Your task to perform on an android device: Open battery settings Image 0: 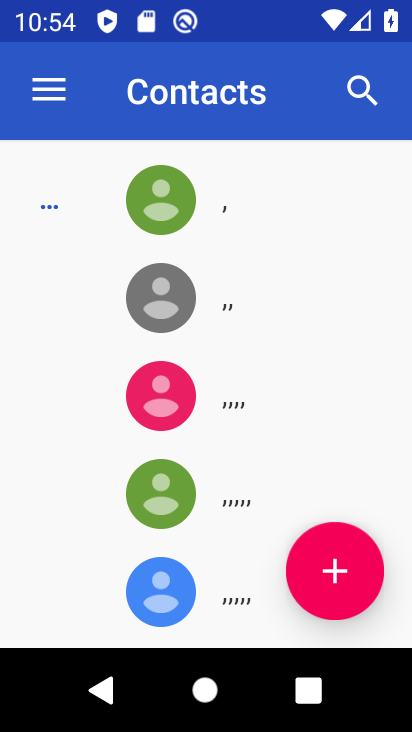
Step 0: press home button
Your task to perform on an android device: Open battery settings Image 1: 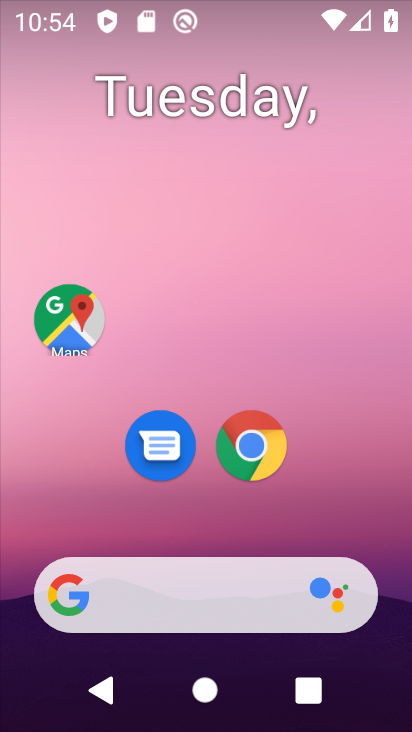
Step 1: drag from (368, 453) to (344, 157)
Your task to perform on an android device: Open battery settings Image 2: 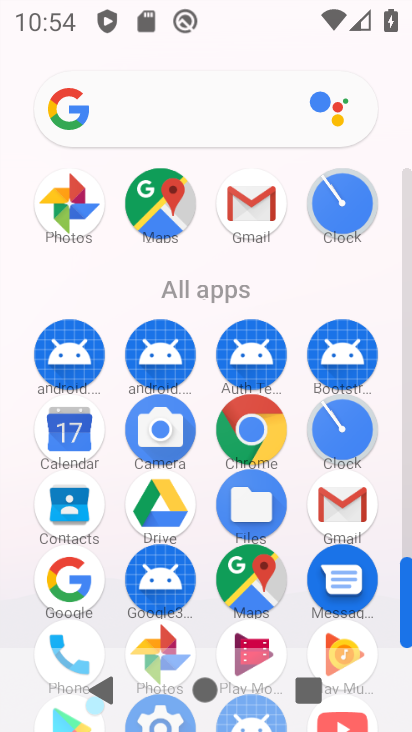
Step 2: drag from (194, 501) to (206, 248)
Your task to perform on an android device: Open battery settings Image 3: 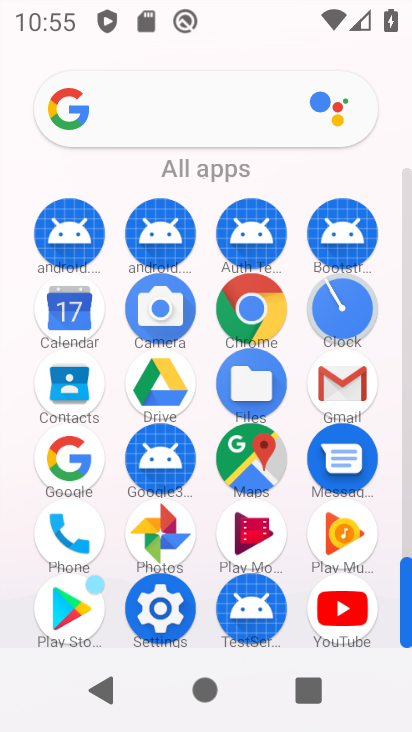
Step 3: click (169, 596)
Your task to perform on an android device: Open battery settings Image 4: 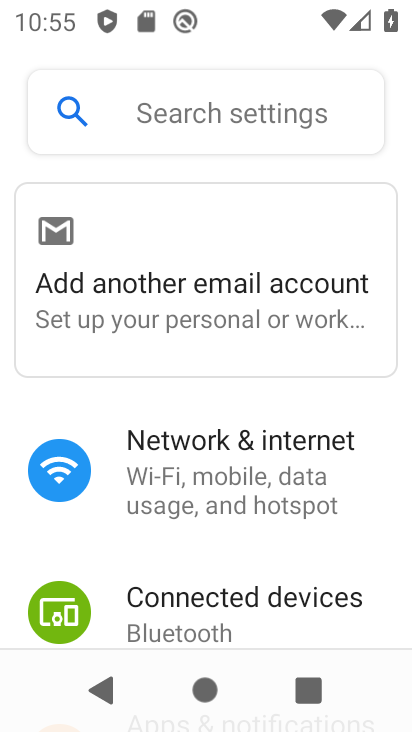
Step 4: drag from (376, 628) to (380, 462)
Your task to perform on an android device: Open battery settings Image 5: 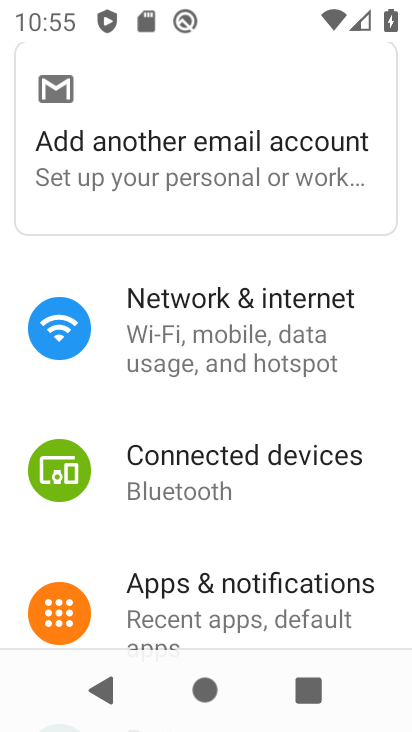
Step 5: drag from (346, 533) to (350, 363)
Your task to perform on an android device: Open battery settings Image 6: 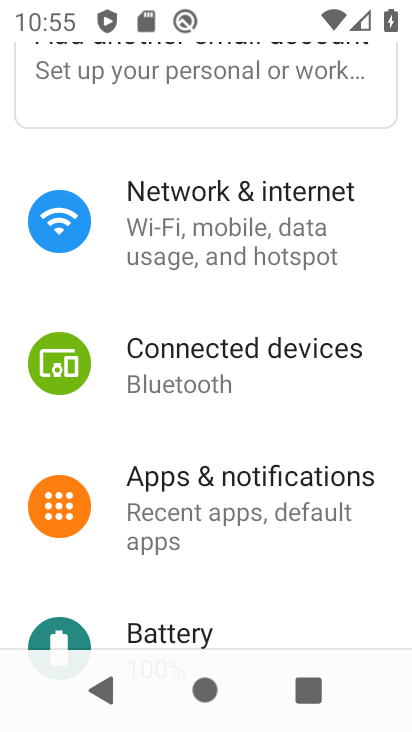
Step 6: drag from (343, 605) to (337, 391)
Your task to perform on an android device: Open battery settings Image 7: 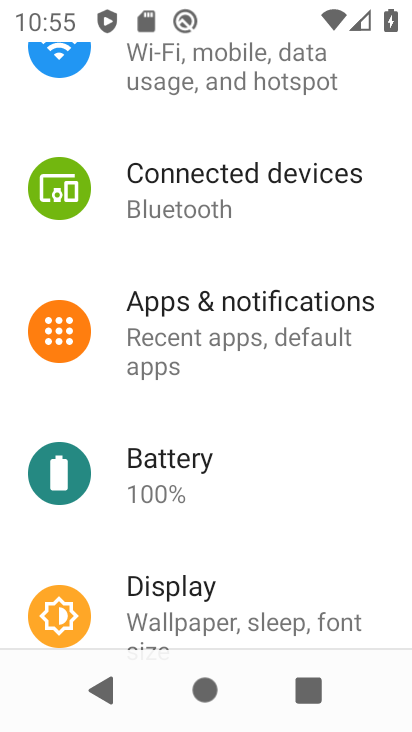
Step 7: drag from (327, 555) to (333, 377)
Your task to perform on an android device: Open battery settings Image 8: 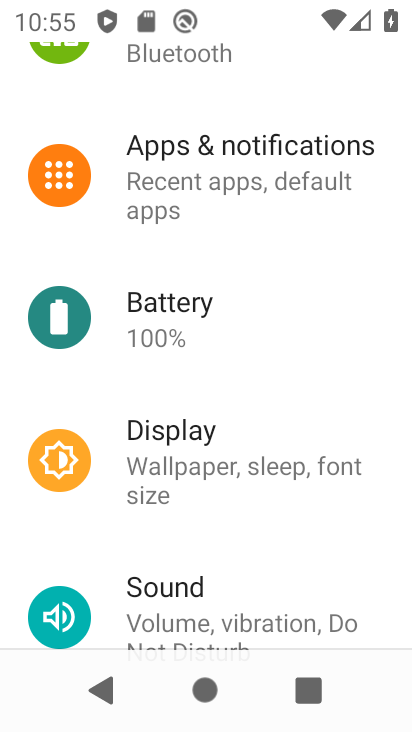
Step 8: drag from (311, 558) to (304, 396)
Your task to perform on an android device: Open battery settings Image 9: 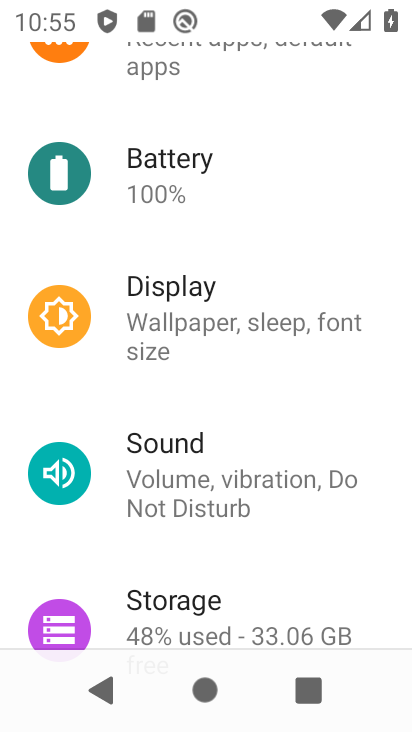
Step 9: drag from (310, 555) to (303, 379)
Your task to perform on an android device: Open battery settings Image 10: 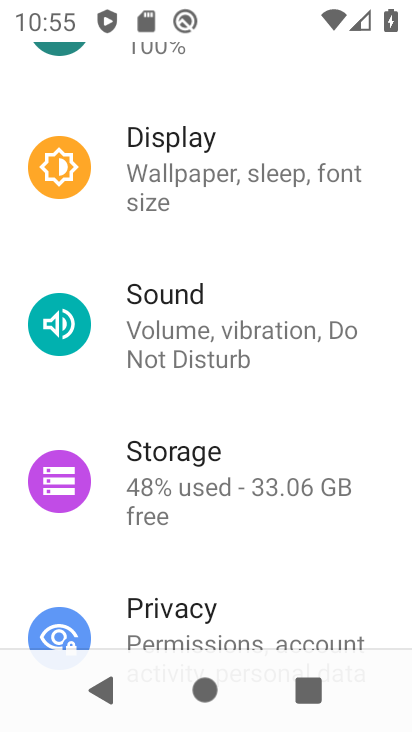
Step 10: drag from (335, 564) to (347, 372)
Your task to perform on an android device: Open battery settings Image 11: 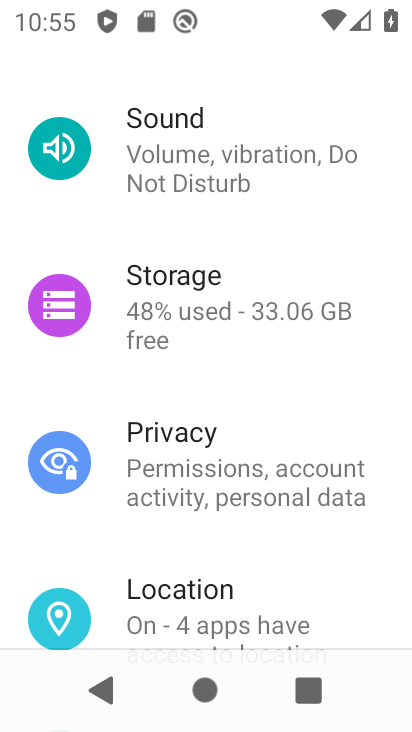
Step 11: drag from (346, 557) to (348, 408)
Your task to perform on an android device: Open battery settings Image 12: 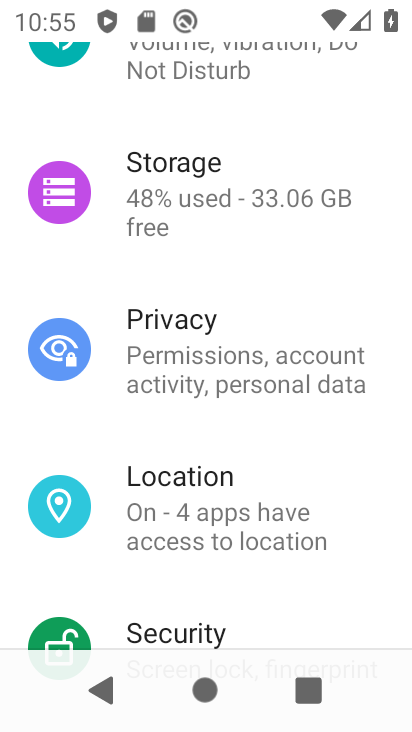
Step 12: drag from (363, 617) to (369, 428)
Your task to perform on an android device: Open battery settings Image 13: 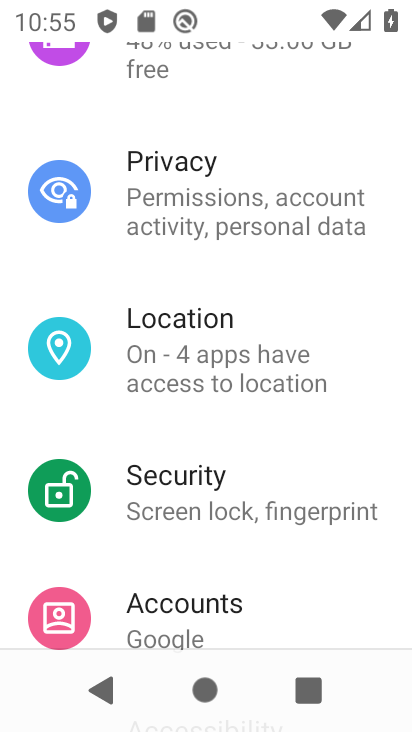
Step 13: drag from (353, 609) to (342, 418)
Your task to perform on an android device: Open battery settings Image 14: 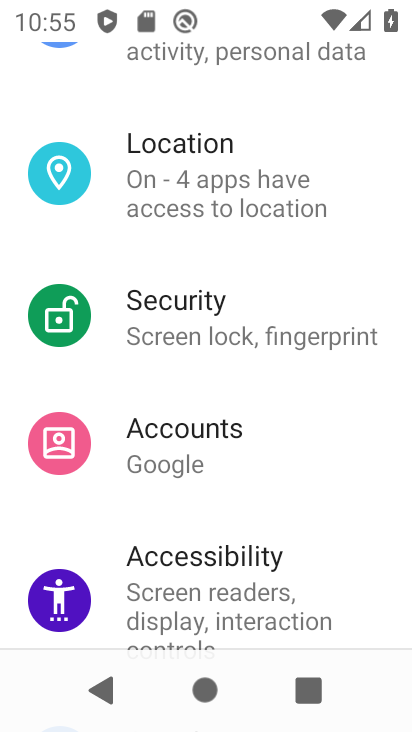
Step 14: drag from (342, 597) to (335, 431)
Your task to perform on an android device: Open battery settings Image 15: 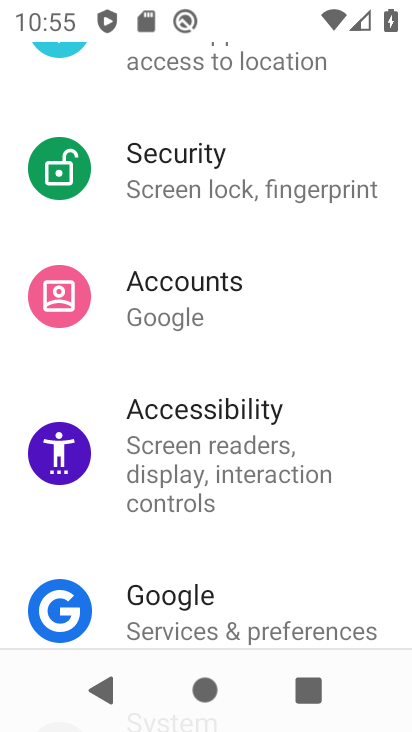
Step 15: drag from (322, 528) to (329, 384)
Your task to perform on an android device: Open battery settings Image 16: 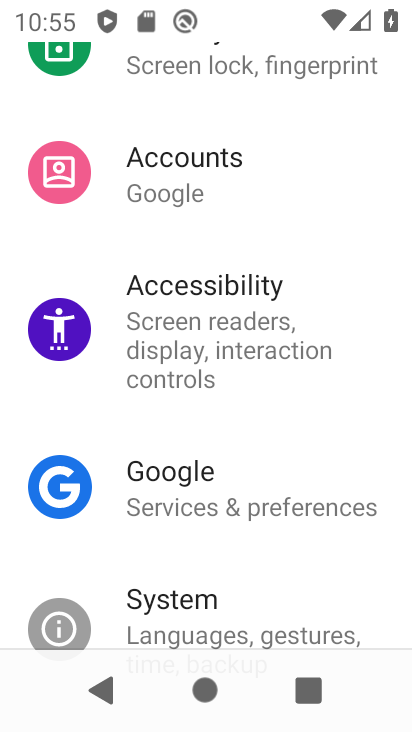
Step 16: drag from (346, 329) to (346, 442)
Your task to perform on an android device: Open battery settings Image 17: 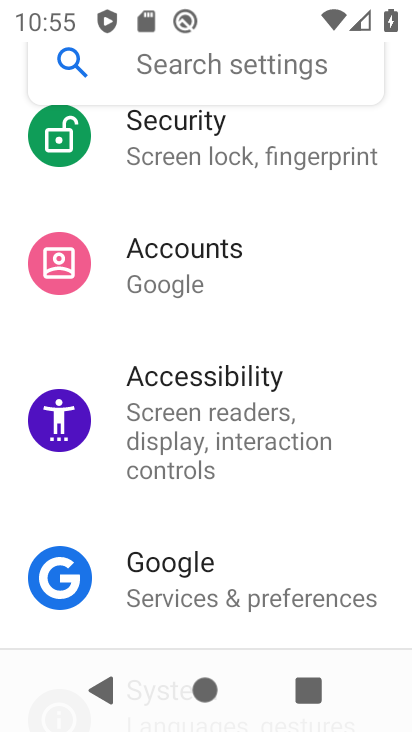
Step 17: drag from (350, 279) to (338, 435)
Your task to perform on an android device: Open battery settings Image 18: 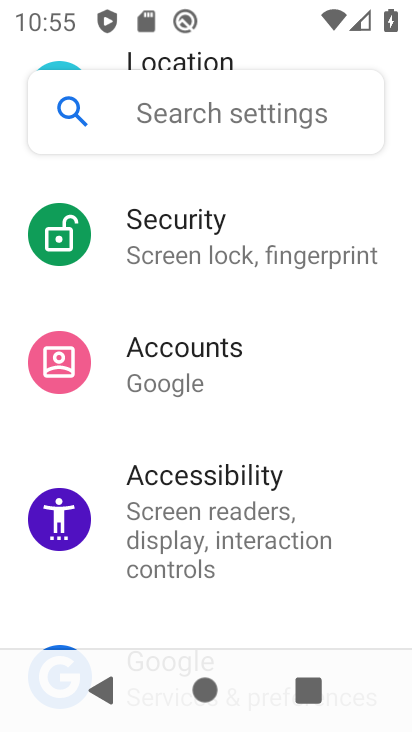
Step 18: drag from (357, 202) to (332, 439)
Your task to perform on an android device: Open battery settings Image 19: 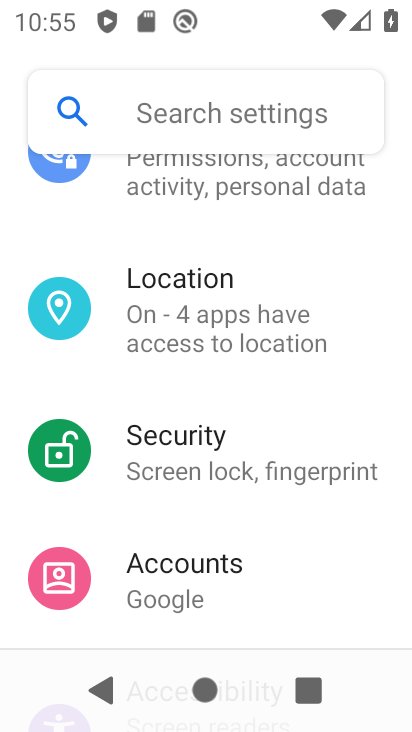
Step 19: drag from (346, 269) to (346, 418)
Your task to perform on an android device: Open battery settings Image 20: 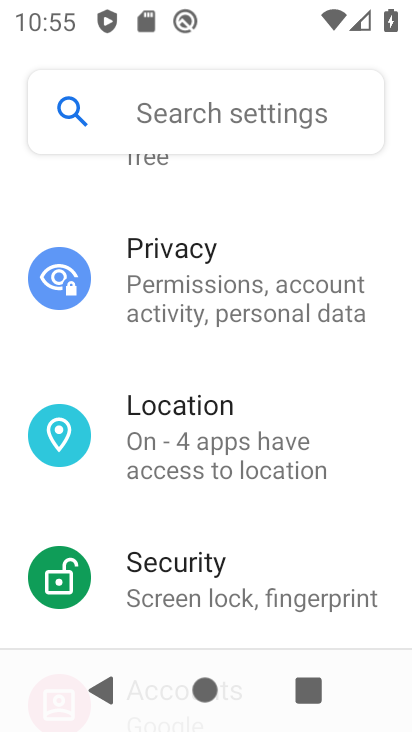
Step 20: drag from (350, 224) to (335, 400)
Your task to perform on an android device: Open battery settings Image 21: 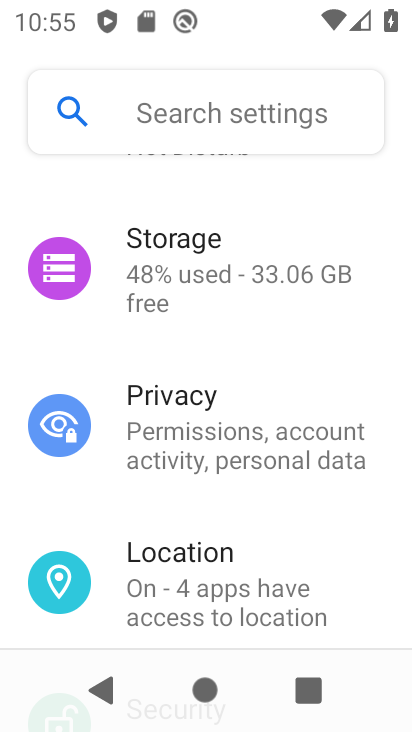
Step 21: drag from (354, 224) to (325, 401)
Your task to perform on an android device: Open battery settings Image 22: 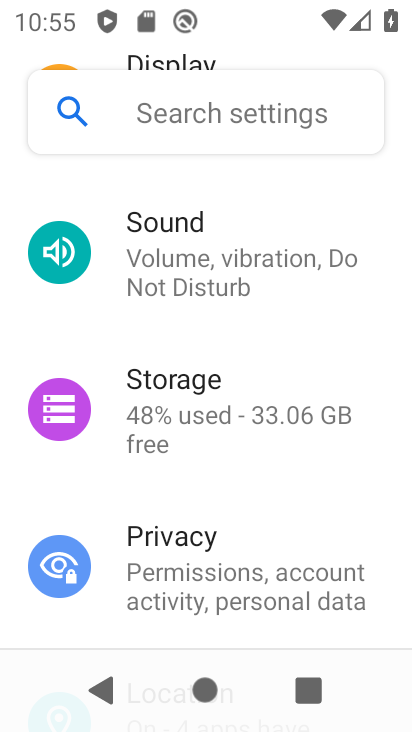
Step 22: drag from (352, 191) to (344, 376)
Your task to perform on an android device: Open battery settings Image 23: 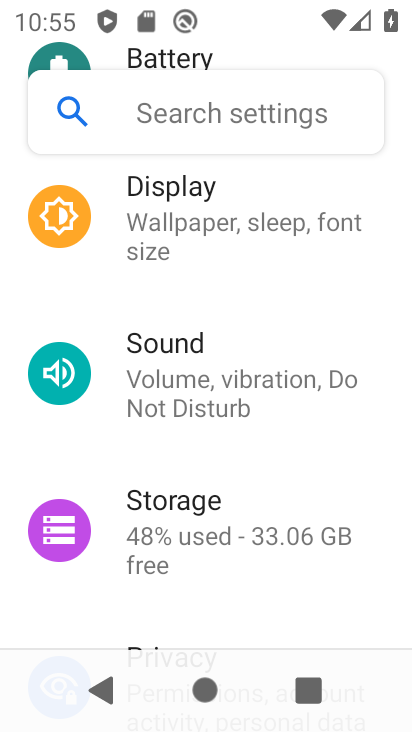
Step 23: drag from (347, 183) to (321, 391)
Your task to perform on an android device: Open battery settings Image 24: 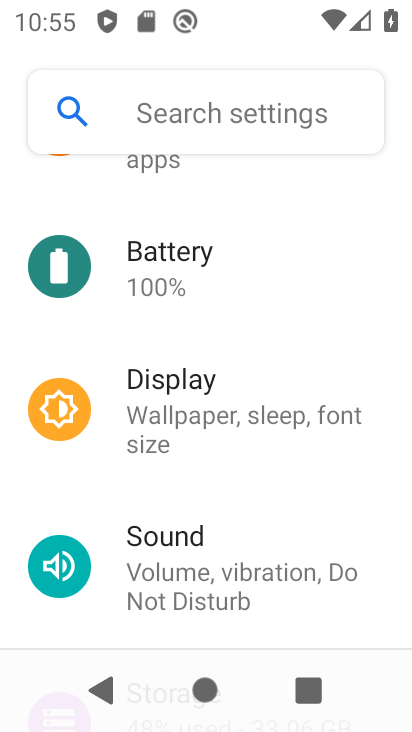
Step 24: click (179, 275)
Your task to perform on an android device: Open battery settings Image 25: 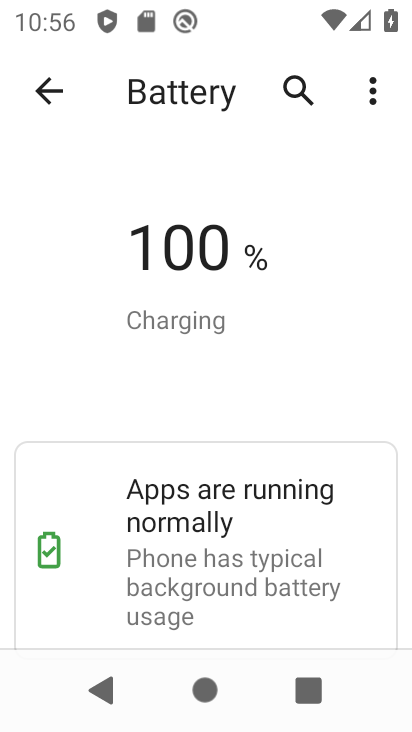
Step 25: task complete